Your task to perform on an android device: Open internet settings Image 0: 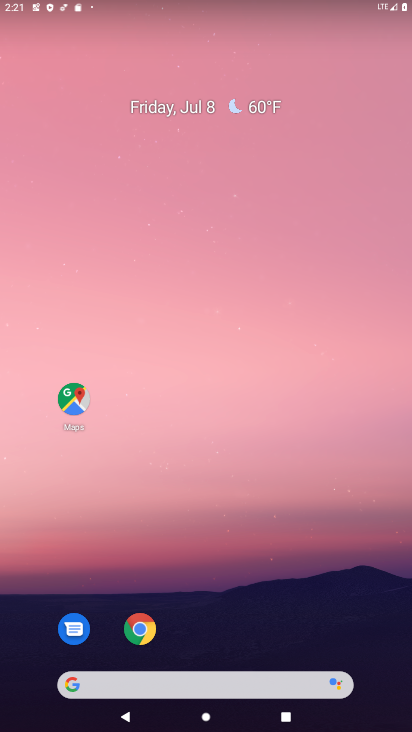
Step 0: drag from (204, 636) to (158, 220)
Your task to perform on an android device: Open internet settings Image 1: 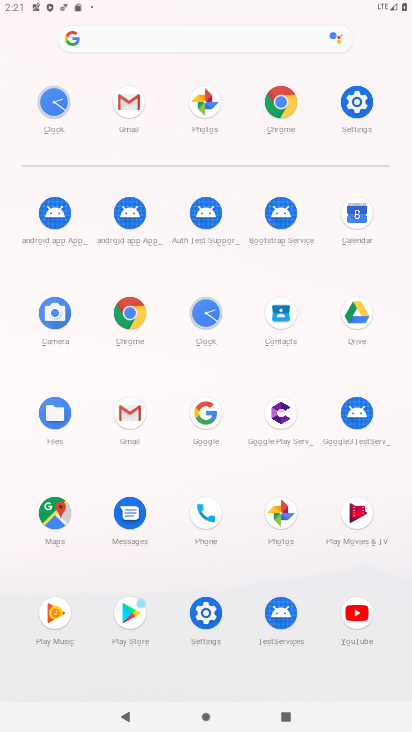
Step 1: click (348, 112)
Your task to perform on an android device: Open internet settings Image 2: 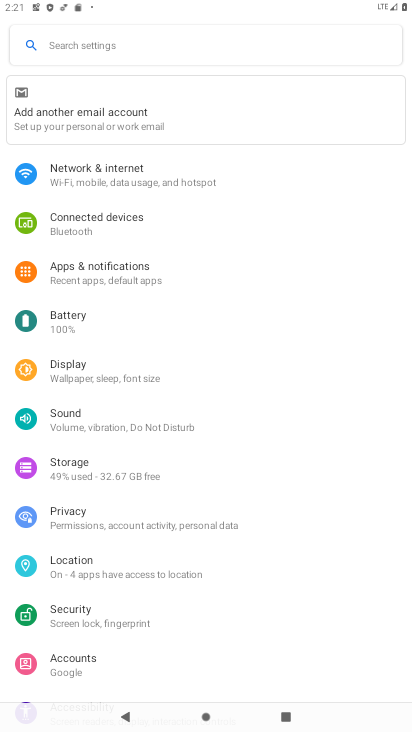
Step 2: click (132, 176)
Your task to perform on an android device: Open internet settings Image 3: 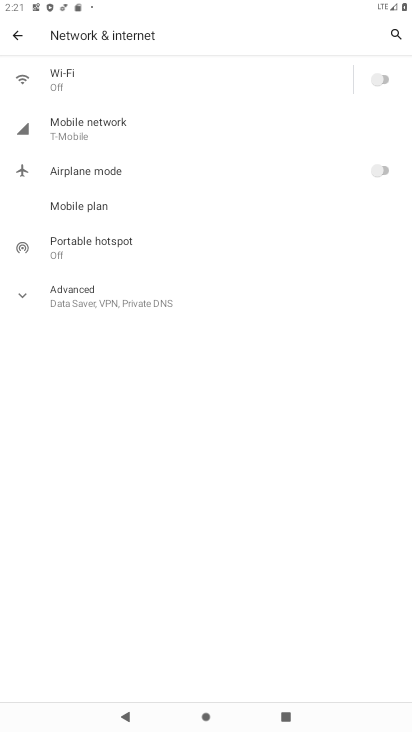
Step 3: task complete